Your task to perform on an android device: see sites visited before in the chrome app Image 0: 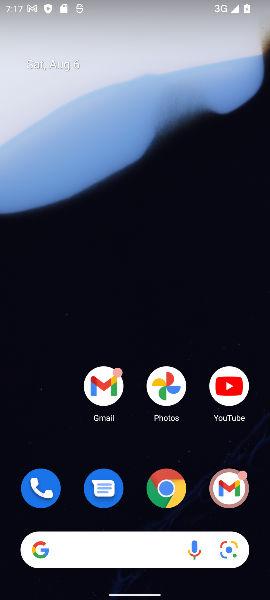
Step 0: click (167, 496)
Your task to perform on an android device: see sites visited before in the chrome app Image 1: 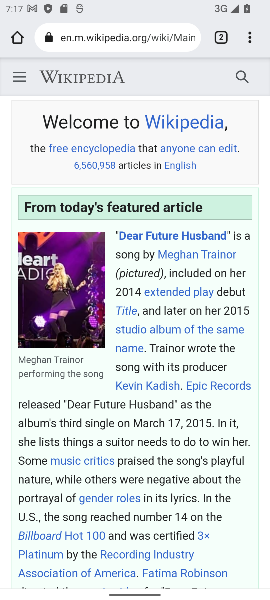
Step 1: click (251, 34)
Your task to perform on an android device: see sites visited before in the chrome app Image 2: 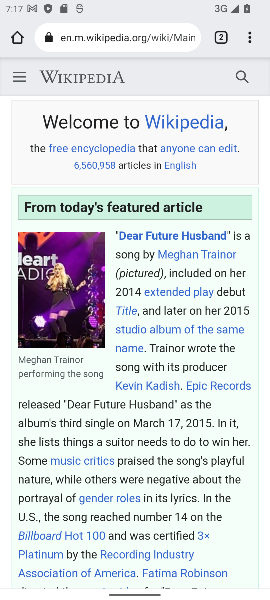
Step 2: click (248, 38)
Your task to perform on an android device: see sites visited before in the chrome app Image 3: 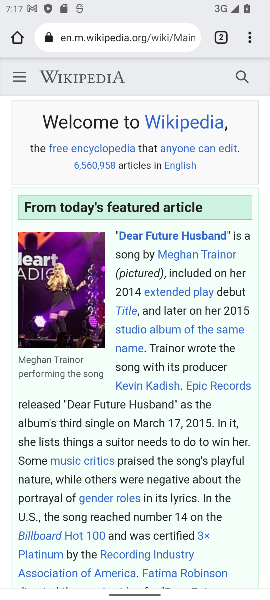
Step 3: click (244, 43)
Your task to perform on an android device: see sites visited before in the chrome app Image 4: 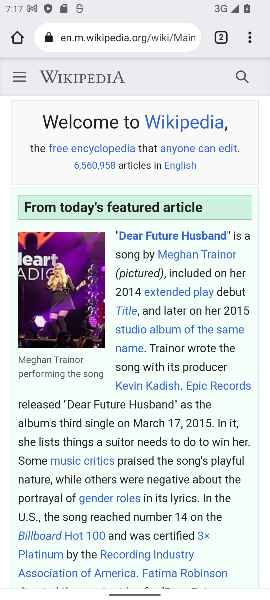
Step 4: click (247, 35)
Your task to perform on an android device: see sites visited before in the chrome app Image 5: 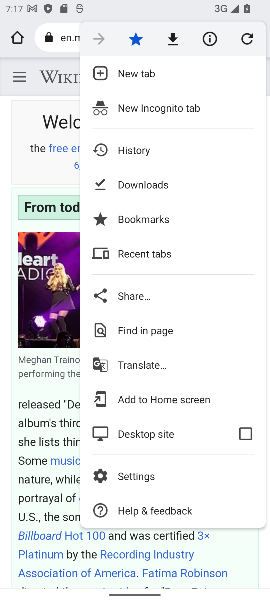
Step 5: click (146, 146)
Your task to perform on an android device: see sites visited before in the chrome app Image 6: 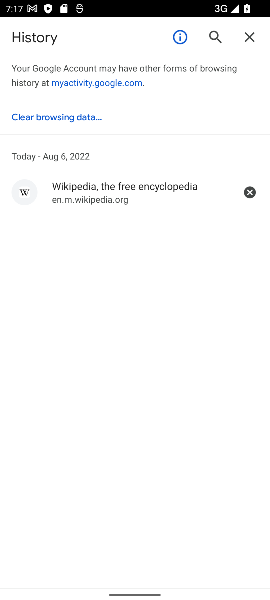
Step 6: task complete